Your task to perform on an android device: open chrome privacy settings Image 0: 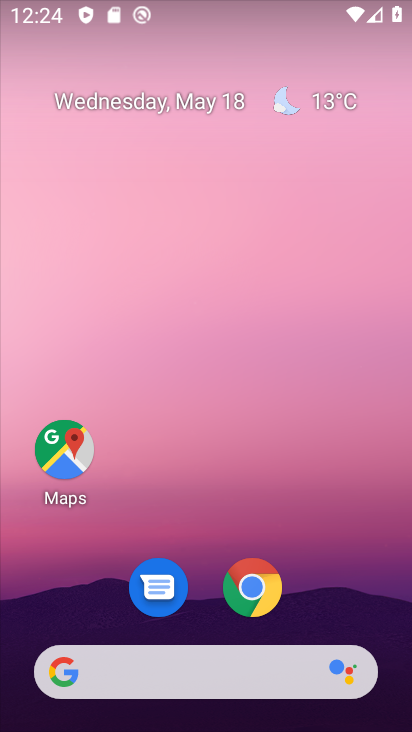
Step 0: click (251, 584)
Your task to perform on an android device: open chrome privacy settings Image 1: 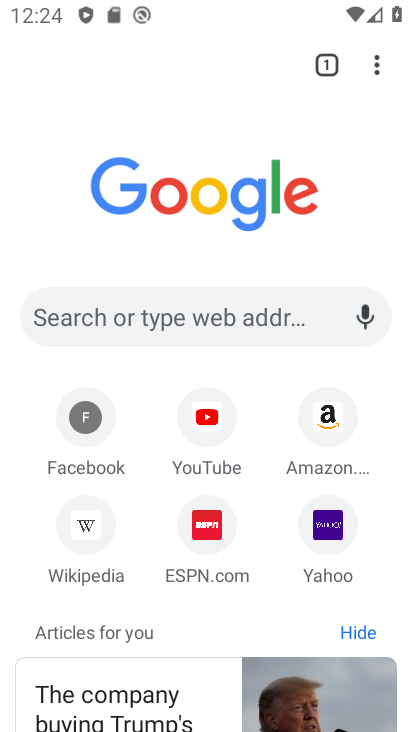
Step 1: drag from (373, 71) to (159, 558)
Your task to perform on an android device: open chrome privacy settings Image 2: 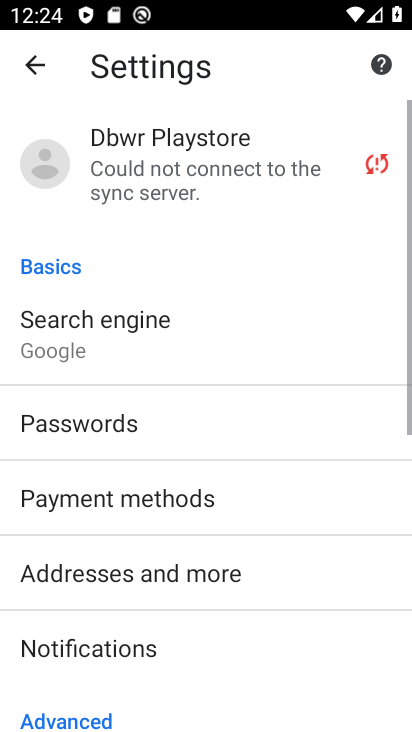
Step 2: drag from (128, 600) to (200, 92)
Your task to perform on an android device: open chrome privacy settings Image 3: 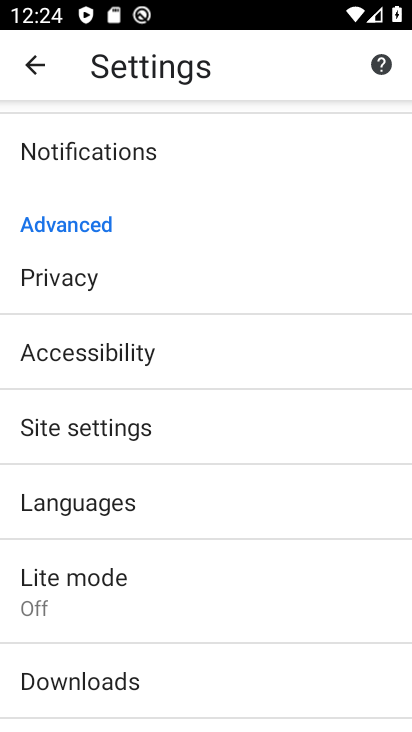
Step 3: click (89, 285)
Your task to perform on an android device: open chrome privacy settings Image 4: 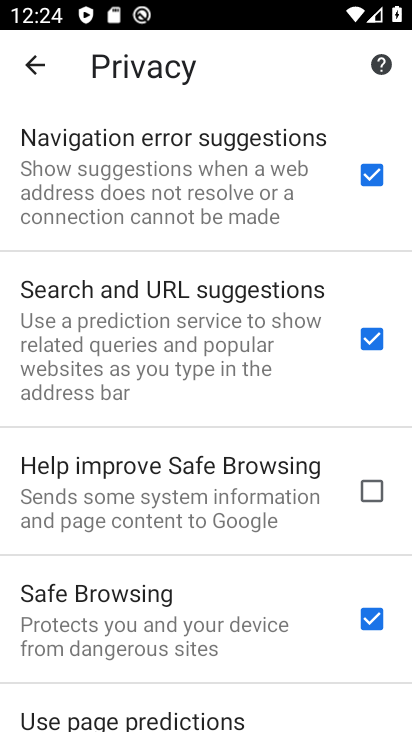
Step 4: task complete